Your task to perform on an android device: Search for the best selling books Image 0: 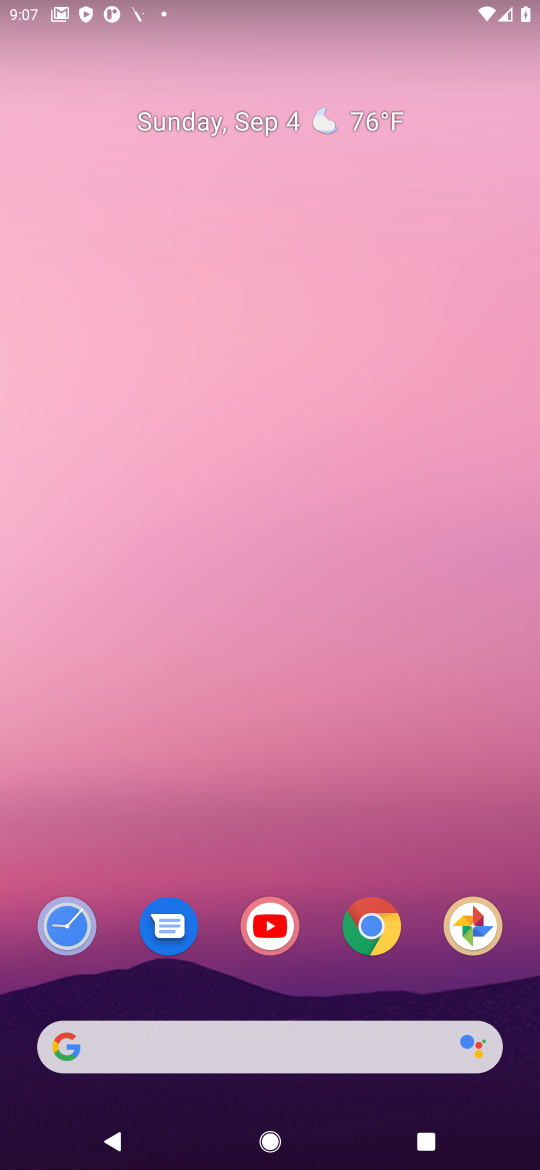
Step 0: click (203, 1045)
Your task to perform on an android device: Search for the best selling books Image 1: 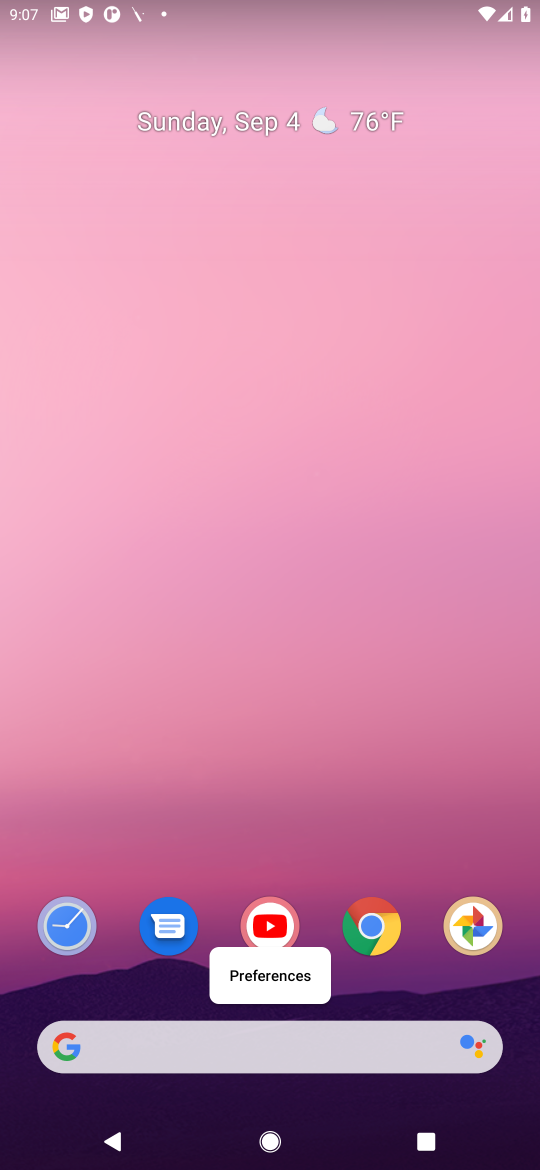
Step 1: click (92, 1039)
Your task to perform on an android device: Search for the best selling books Image 2: 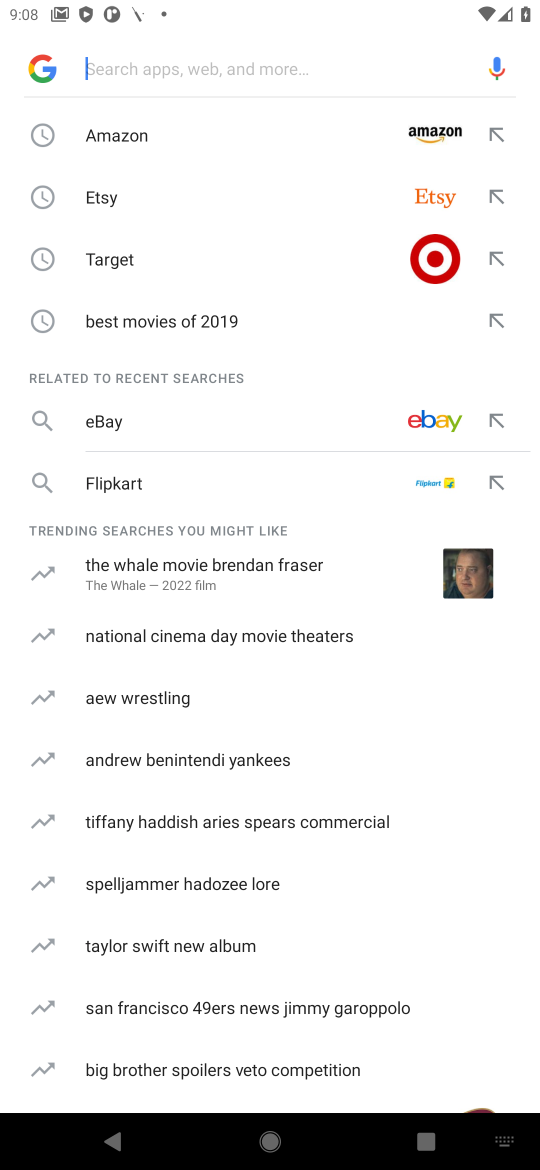
Step 2: type "best selling book"
Your task to perform on an android device: Search for the best selling books Image 3: 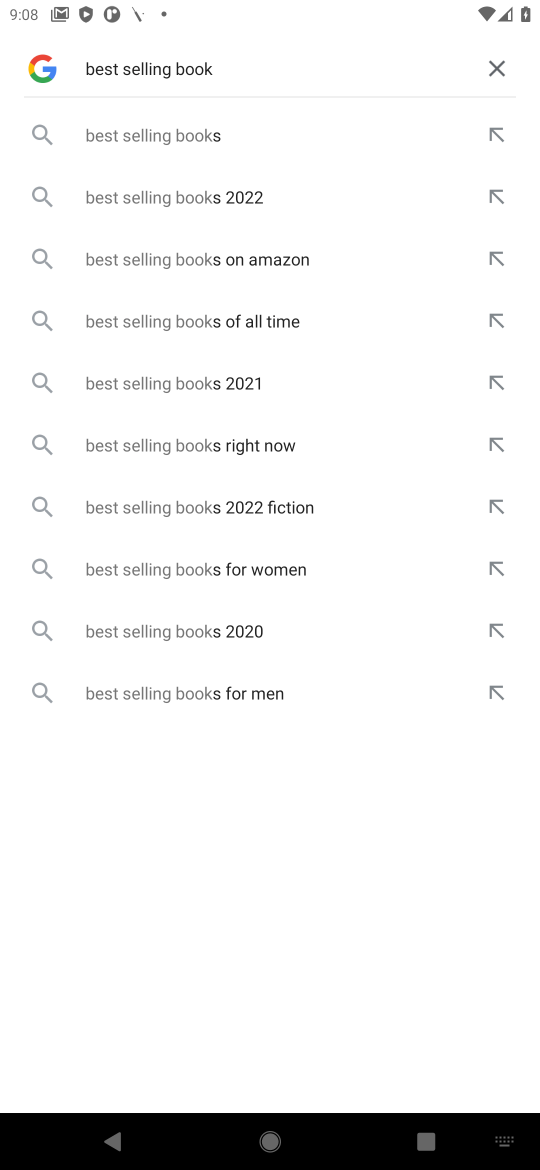
Step 3: click (191, 125)
Your task to perform on an android device: Search for the best selling books Image 4: 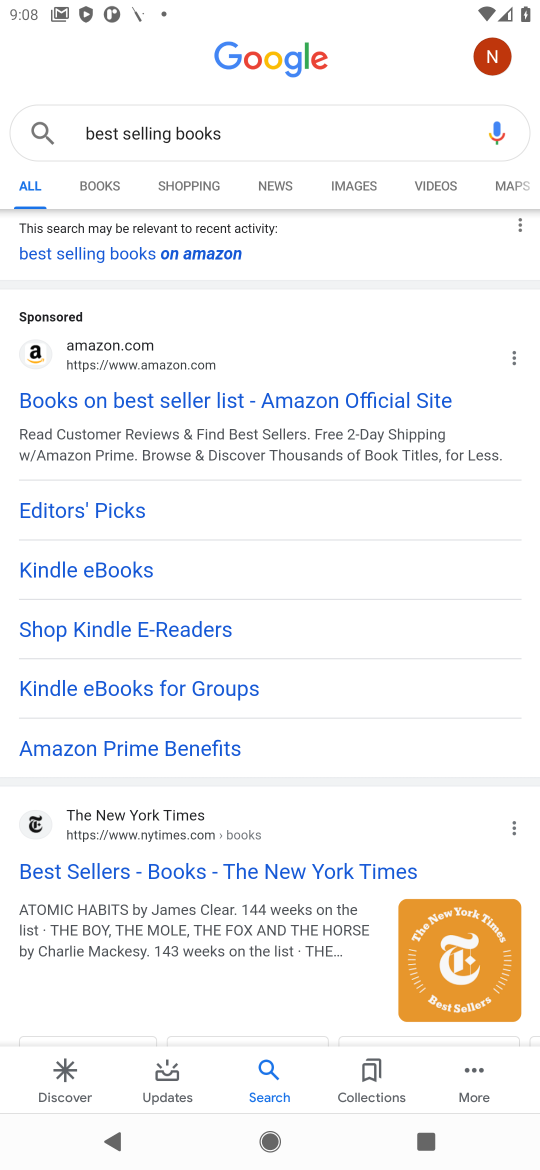
Step 4: click (163, 398)
Your task to perform on an android device: Search for the best selling books Image 5: 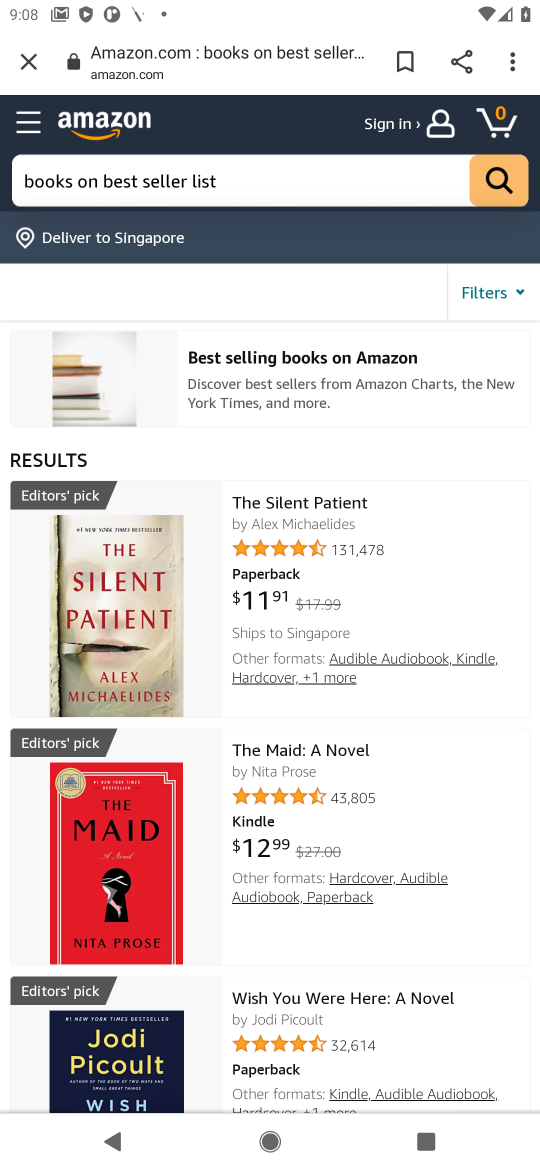
Step 5: task complete